Your task to perform on an android device: see tabs open on other devices in the chrome app Image 0: 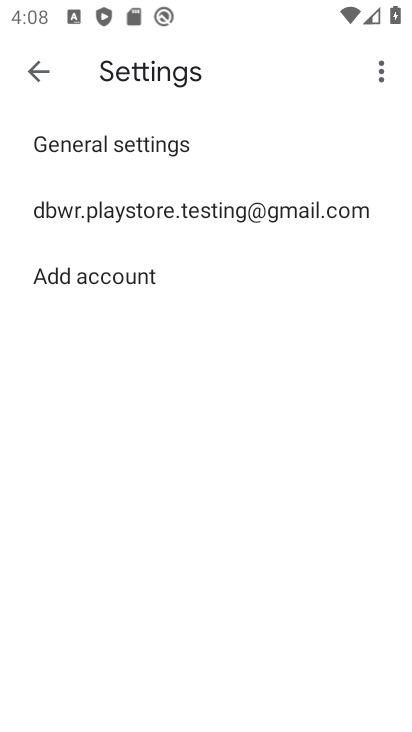
Step 0: press home button
Your task to perform on an android device: see tabs open on other devices in the chrome app Image 1: 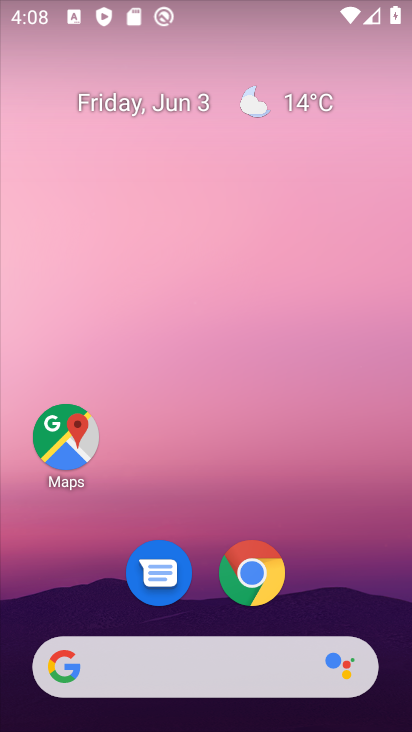
Step 1: drag from (286, 702) to (388, 568)
Your task to perform on an android device: see tabs open on other devices in the chrome app Image 2: 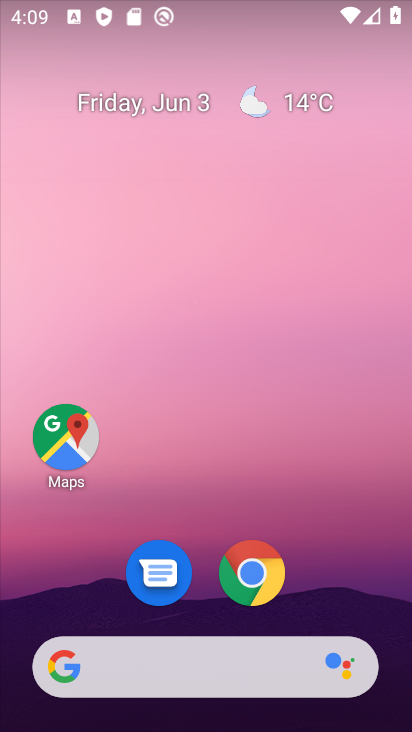
Step 2: drag from (322, 636) to (373, 163)
Your task to perform on an android device: see tabs open on other devices in the chrome app Image 3: 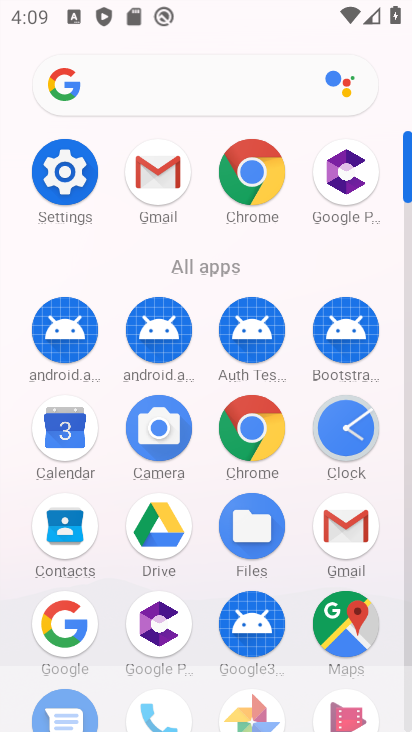
Step 3: click (264, 431)
Your task to perform on an android device: see tabs open on other devices in the chrome app Image 4: 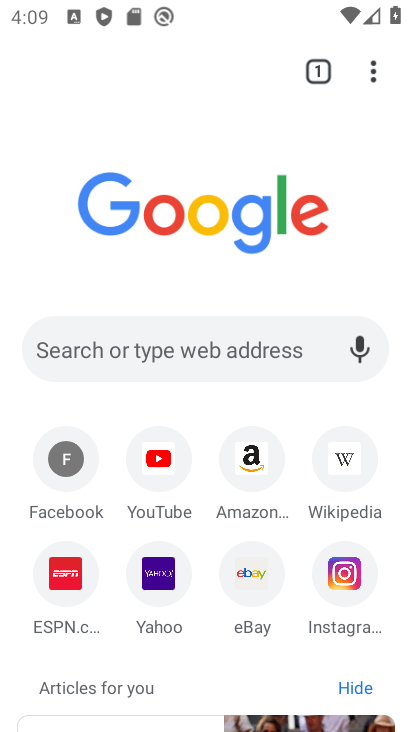
Step 4: task complete